Your task to perform on an android device: allow cookies in the chrome app Image 0: 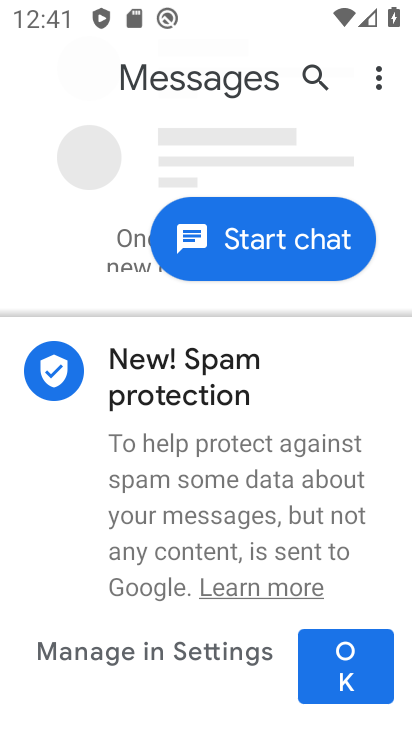
Step 0: press home button
Your task to perform on an android device: allow cookies in the chrome app Image 1: 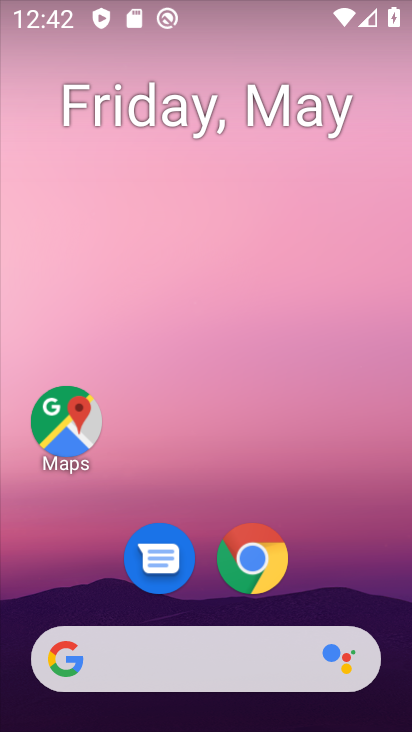
Step 1: drag from (371, 590) to (298, 250)
Your task to perform on an android device: allow cookies in the chrome app Image 2: 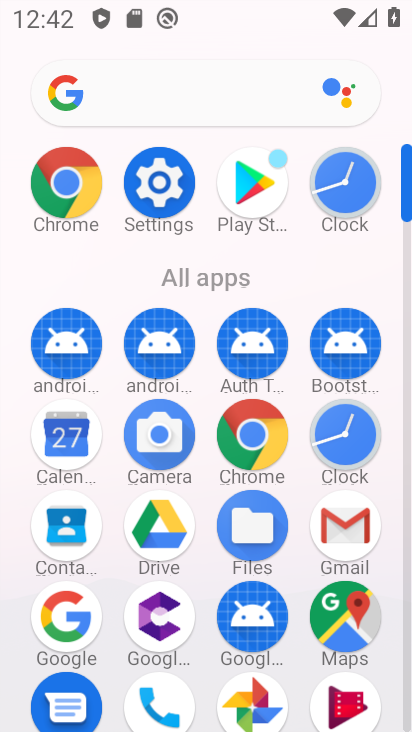
Step 2: click (254, 405)
Your task to perform on an android device: allow cookies in the chrome app Image 3: 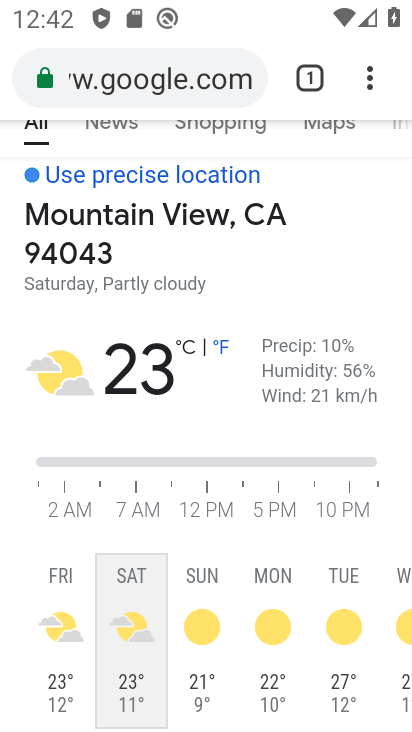
Step 3: click (377, 91)
Your task to perform on an android device: allow cookies in the chrome app Image 4: 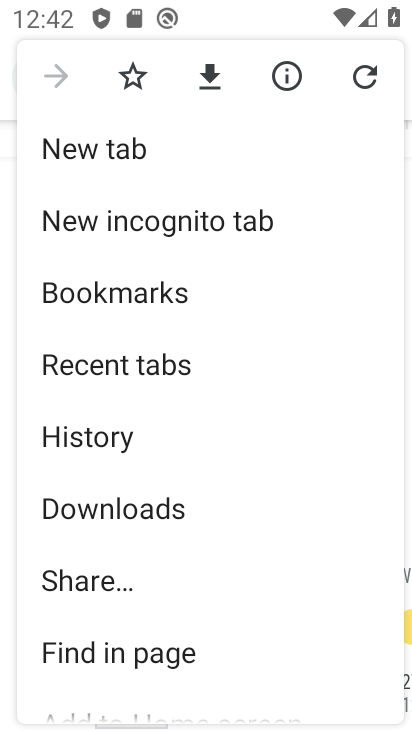
Step 4: click (166, 430)
Your task to perform on an android device: allow cookies in the chrome app Image 5: 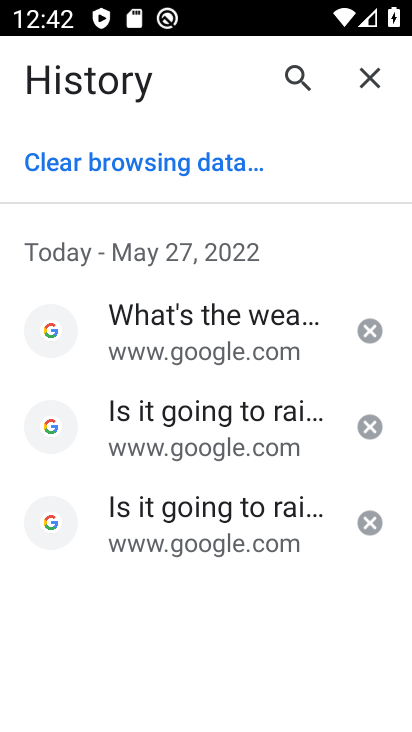
Step 5: click (363, 86)
Your task to perform on an android device: allow cookies in the chrome app Image 6: 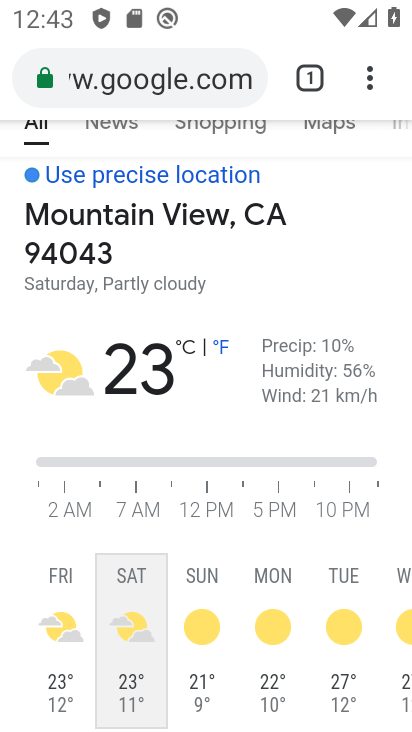
Step 6: click (372, 75)
Your task to perform on an android device: allow cookies in the chrome app Image 7: 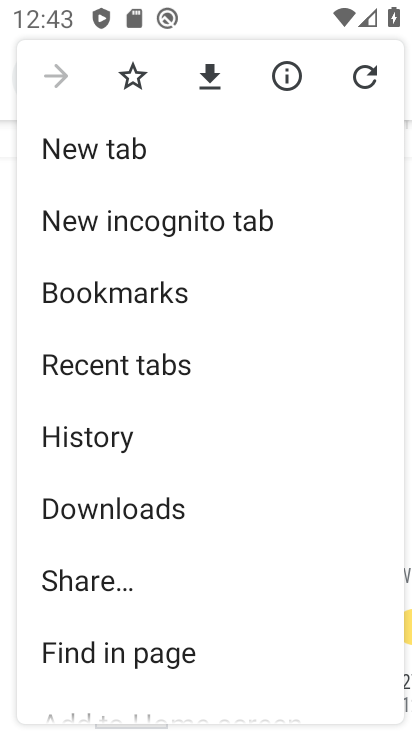
Step 7: drag from (245, 644) to (217, 266)
Your task to perform on an android device: allow cookies in the chrome app Image 8: 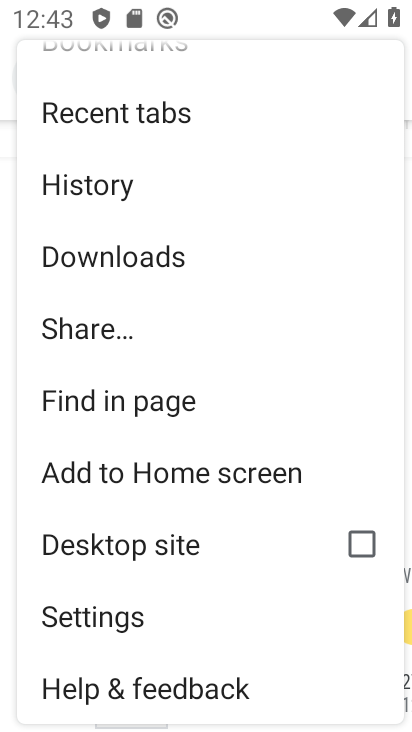
Step 8: click (210, 622)
Your task to perform on an android device: allow cookies in the chrome app Image 9: 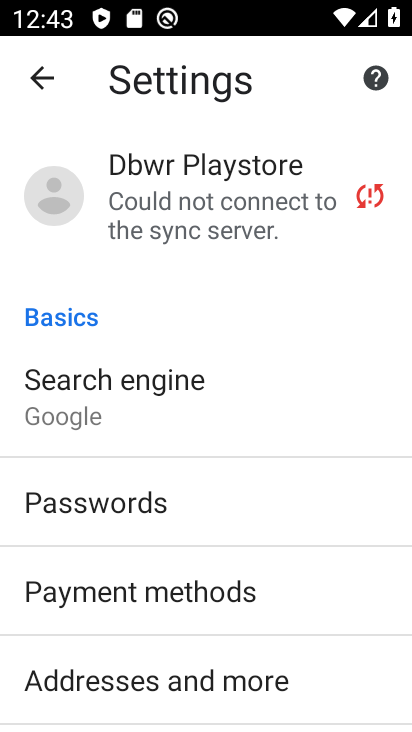
Step 9: drag from (264, 623) to (236, 139)
Your task to perform on an android device: allow cookies in the chrome app Image 10: 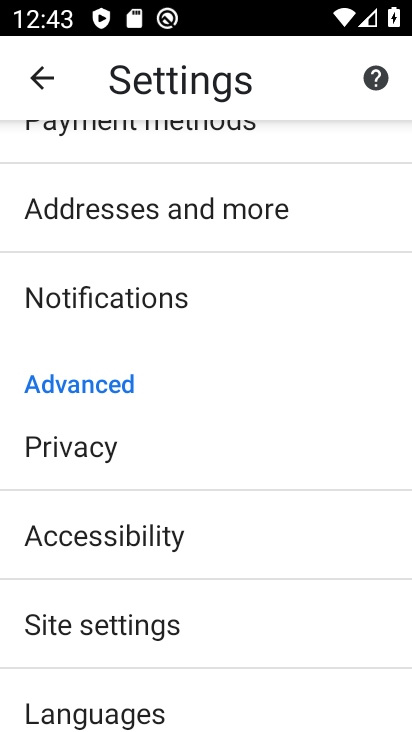
Step 10: click (206, 613)
Your task to perform on an android device: allow cookies in the chrome app Image 11: 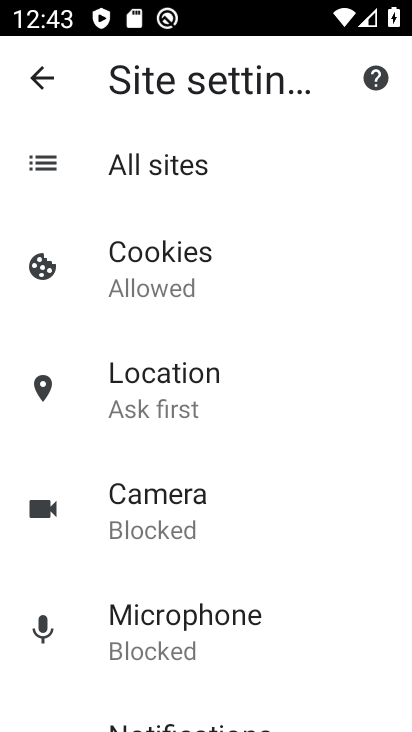
Step 11: click (221, 295)
Your task to perform on an android device: allow cookies in the chrome app Image 12: 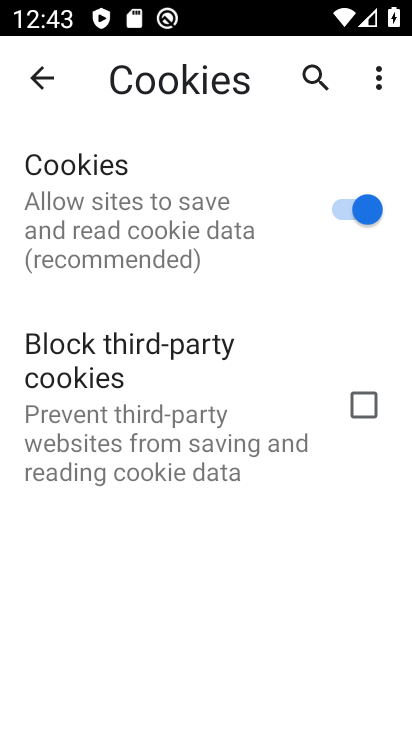
Step 12: task complete